Your task to perform on an android device: Open CNN.com Image 0: 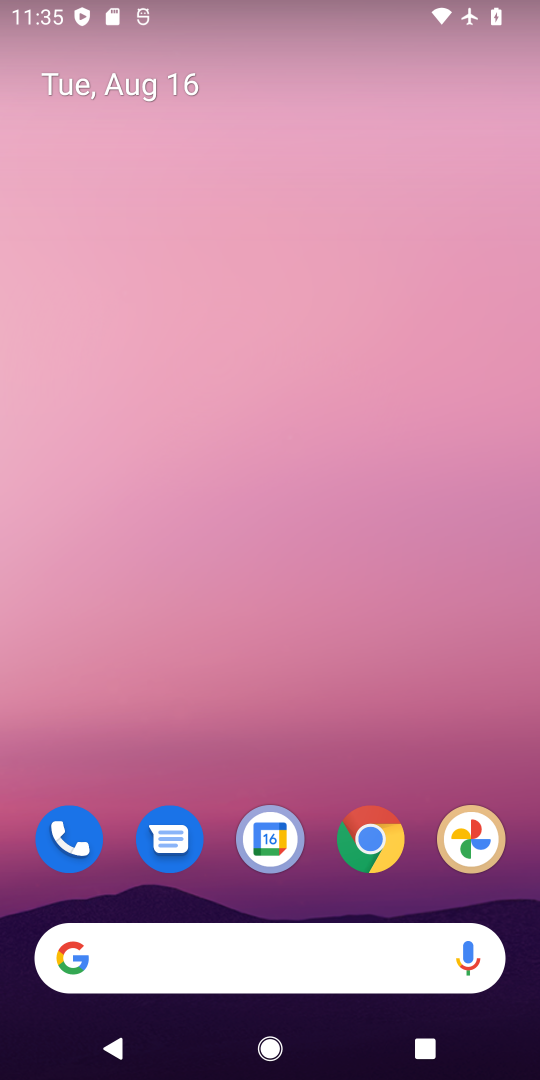
Step 0: click (369, 846)
Your task to perform on an android device: Open CNN.com Image 1: 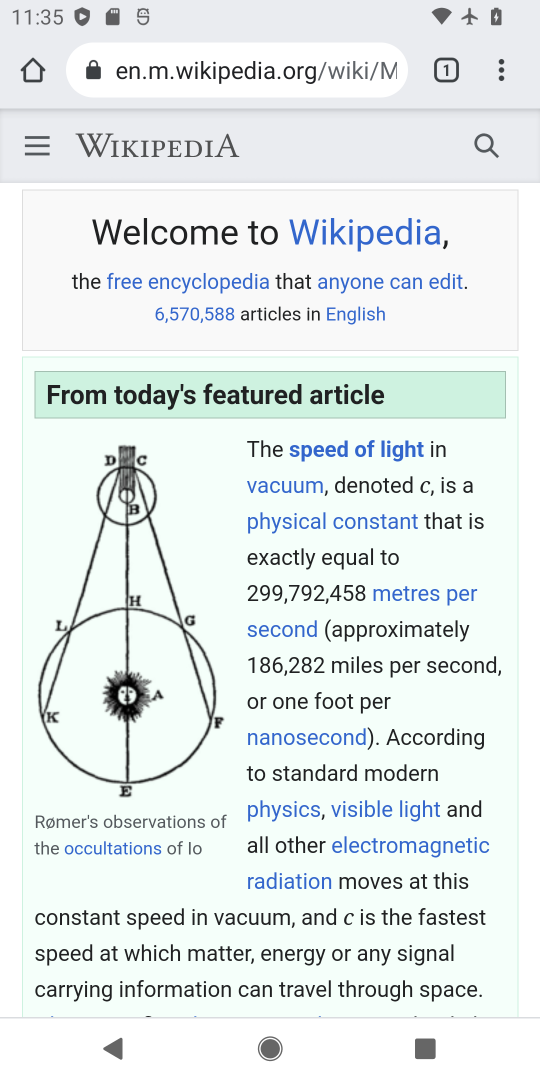
Step 1: click (248, 60)
Your task to perform on an android device: Open CNN.com Image 2: 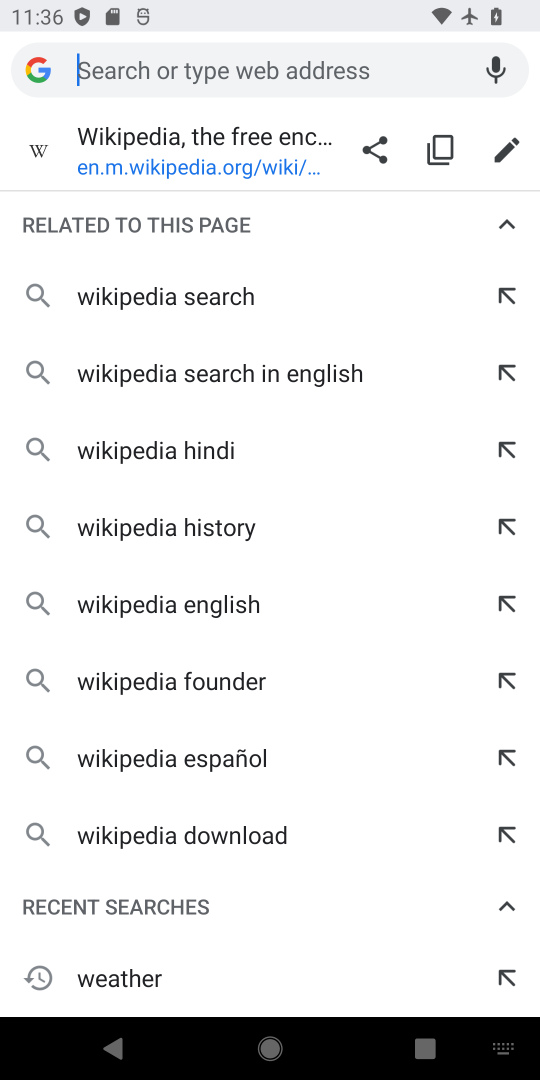
Step 2: type "CNN.com"
Your task to perform on an android device: Open CNN.com Image 3: 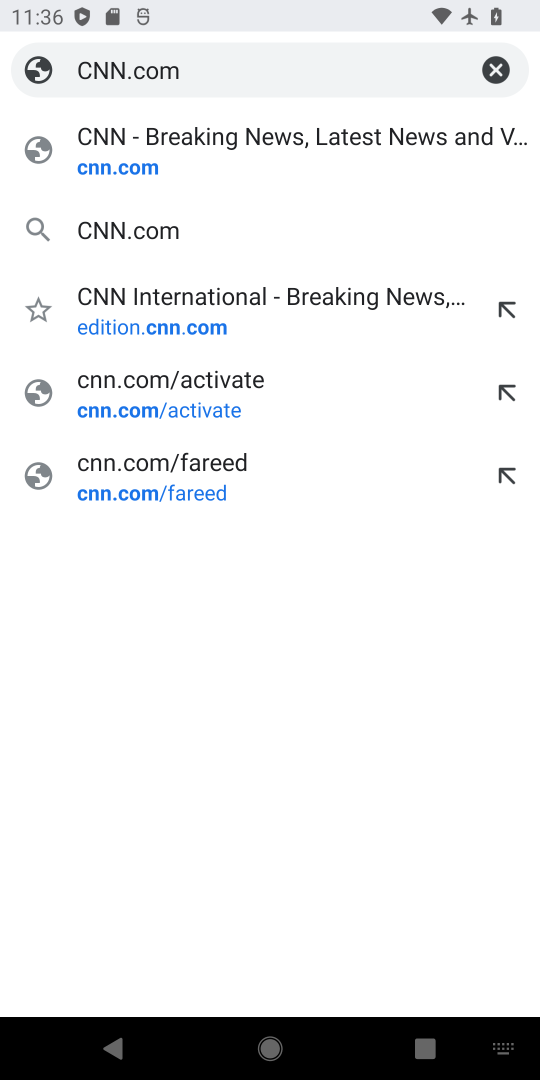
Step 3: click (201, 139)
Your task to perform on an android device: Open CNN.com Image 4: 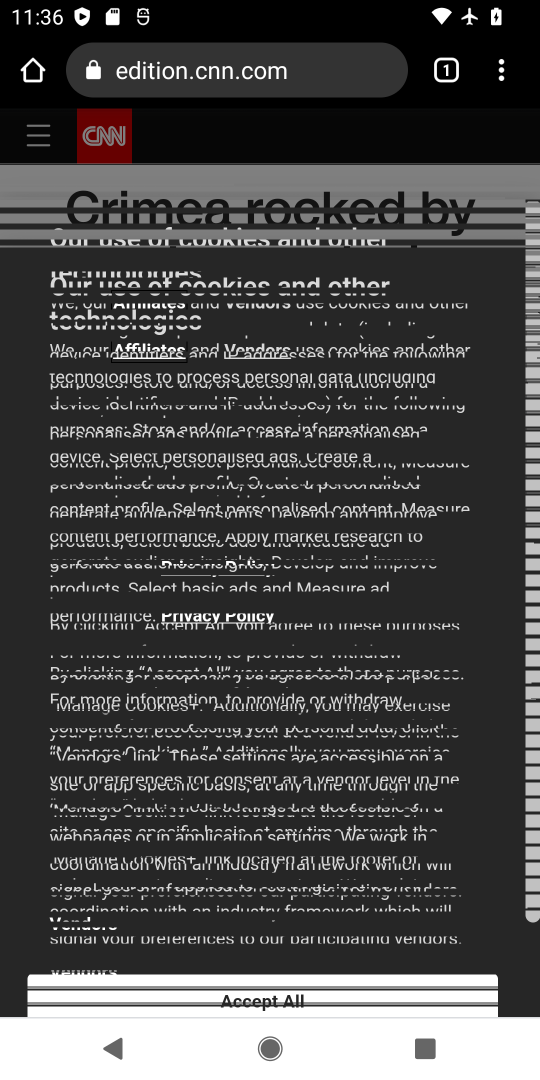
Step 4: task complete